Your task to perform on an android device: Open settings on Google Maps Image 0: 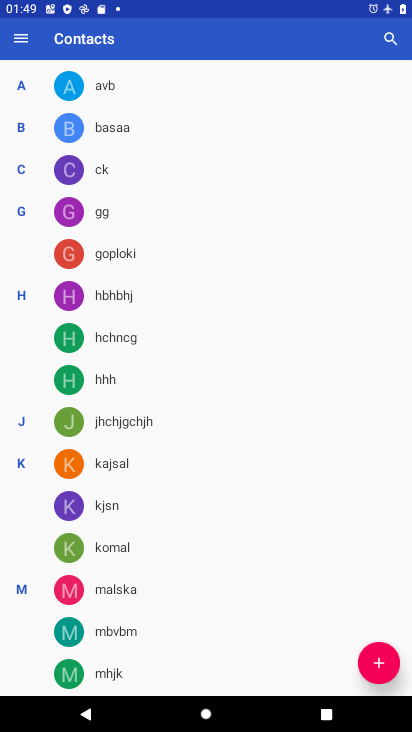
Step 0: press home button
Your task to perform on an android device: Open settings on Google Maps Image 1: 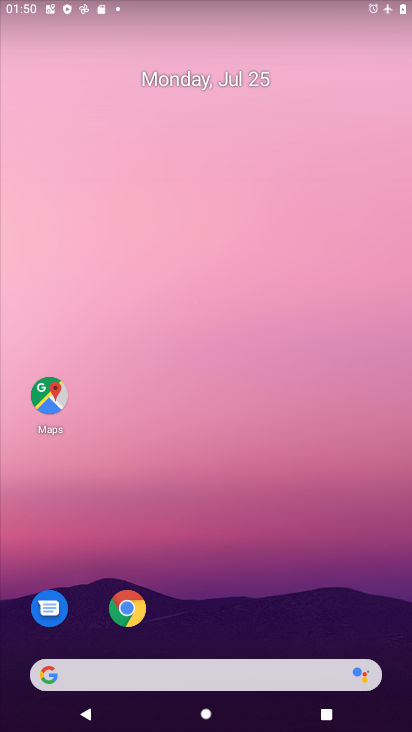
Step 1: click (46, 410)
Your task to perform on an android device: Open settings on Google Maps Image 2: 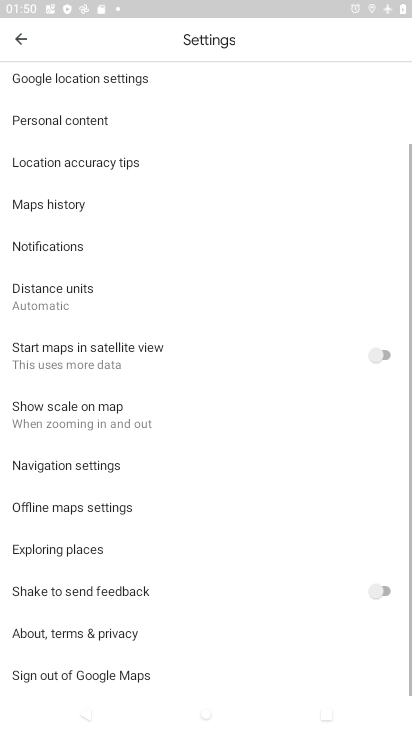
Step 2: click (35, 48)
Your task to perform on an android device: Open settings on Google Maps Image 3: 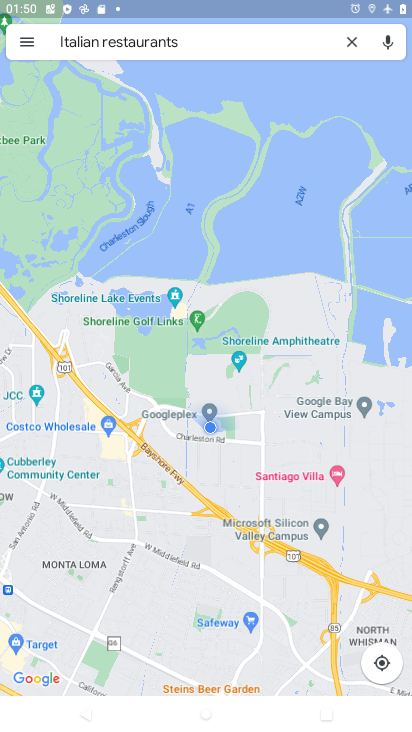
Step 3: click (32, 47)
Your task to perform on an android device: Open settings on Google Maps Image 4: 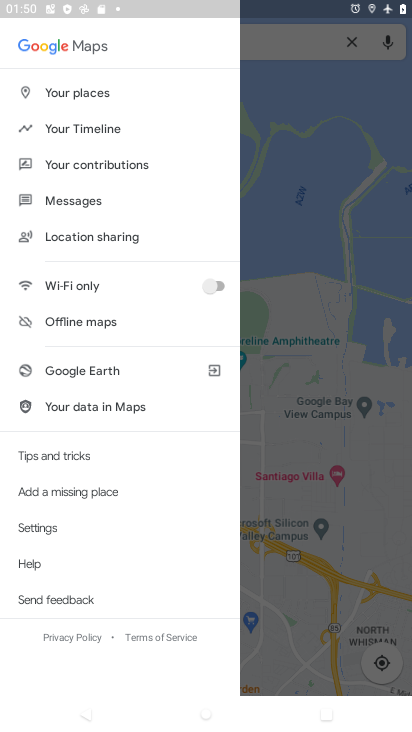
Step 4: click (13, 531)
Your task to perform on an android device: Open settings on Google Maps Image 5: 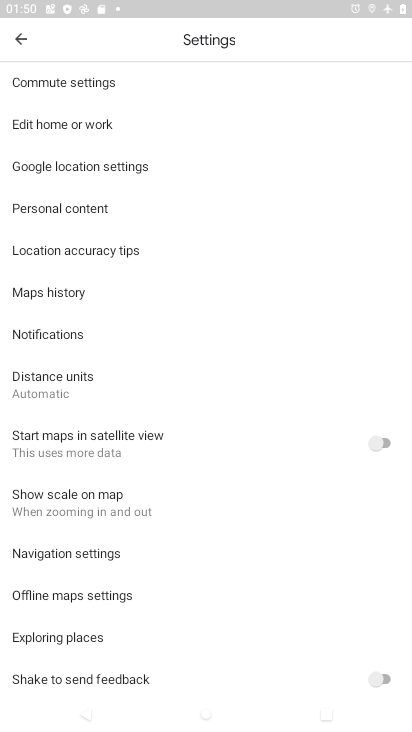
Step 5: task complete